Your task to perform on an android device: Open Google Image 0: 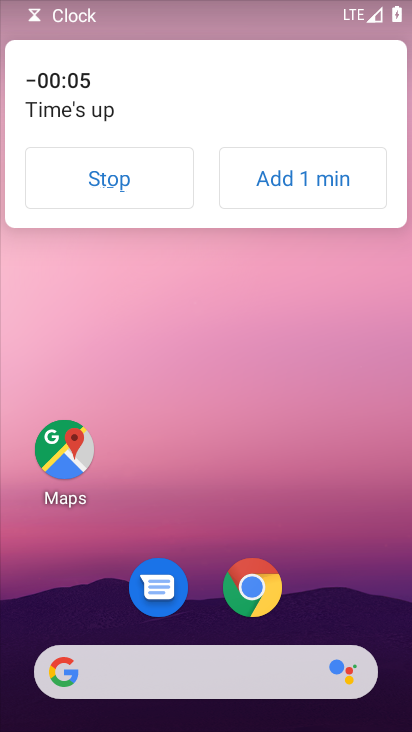
Step 0: click (140, 184)
Your task to perform on an android device: Open Google Image 1: 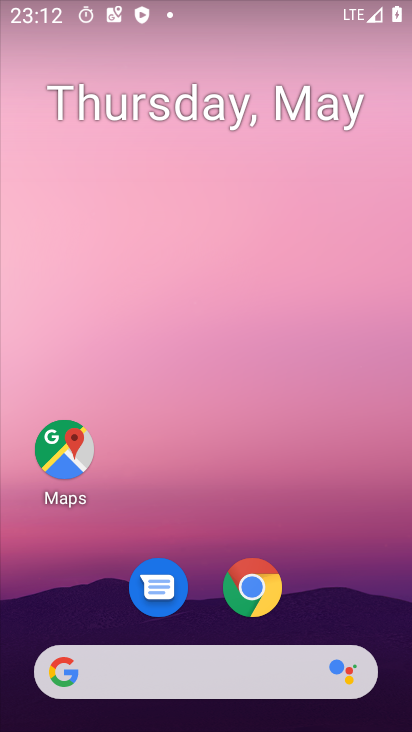
Step 1: drag from (383, 607) to (334, 11)
Your task to perform on an android device: Open Google Image 2: 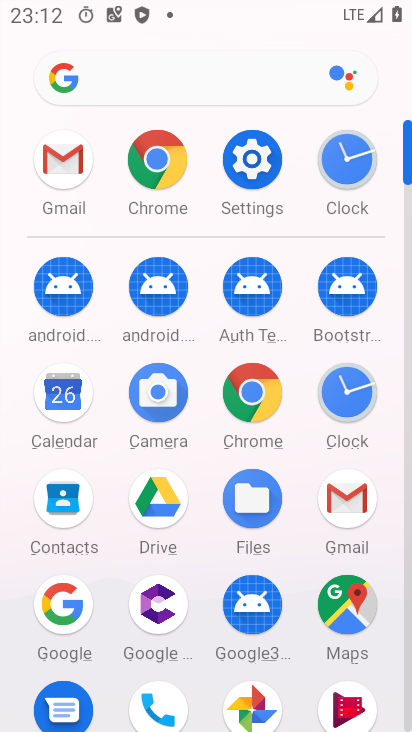
Step 2: click (58, 599)
Your task to perform on an android device: Open Google Image 3: 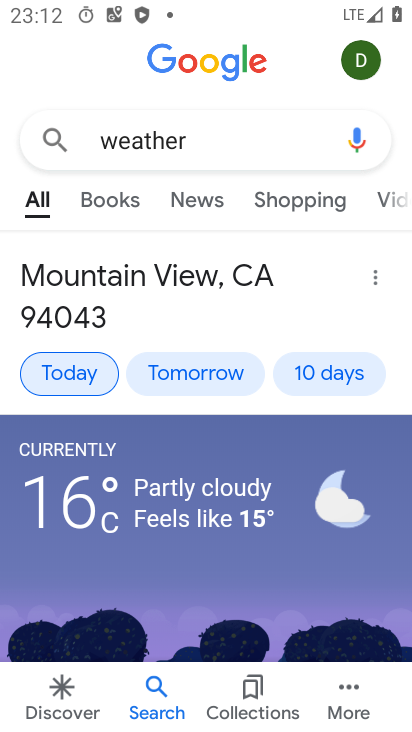
Step 3: task complete